Your task to perform on an android device: Show the shopping cart on amazon.com. Add bose quietcomfort 35 to the cart on amazon.com Image 0: 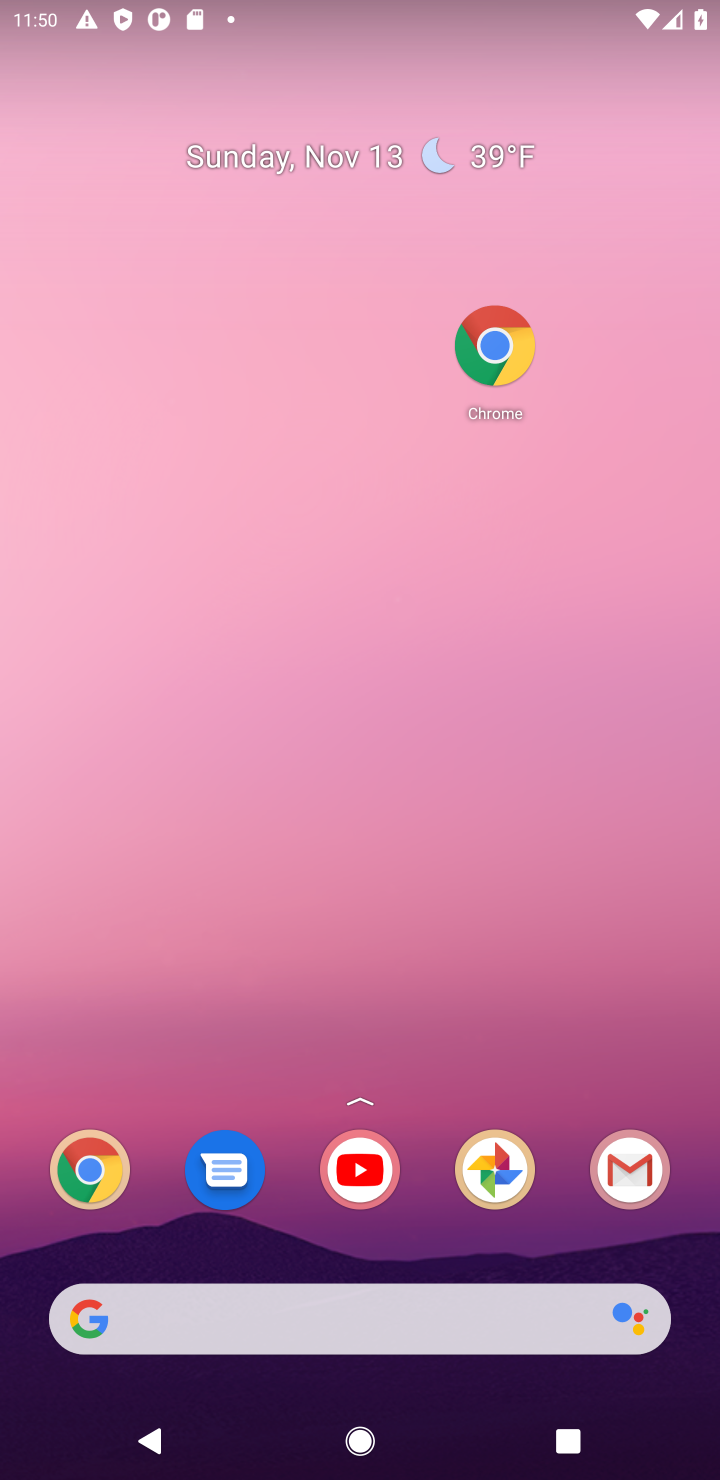
Step 0: drag from (330, 1055) to (381, 0)
Your task to perform on an android device: Show the shopping cart on amazon.com. Add bose quietcomfort 35 to the cart on amazon.com Image 1: 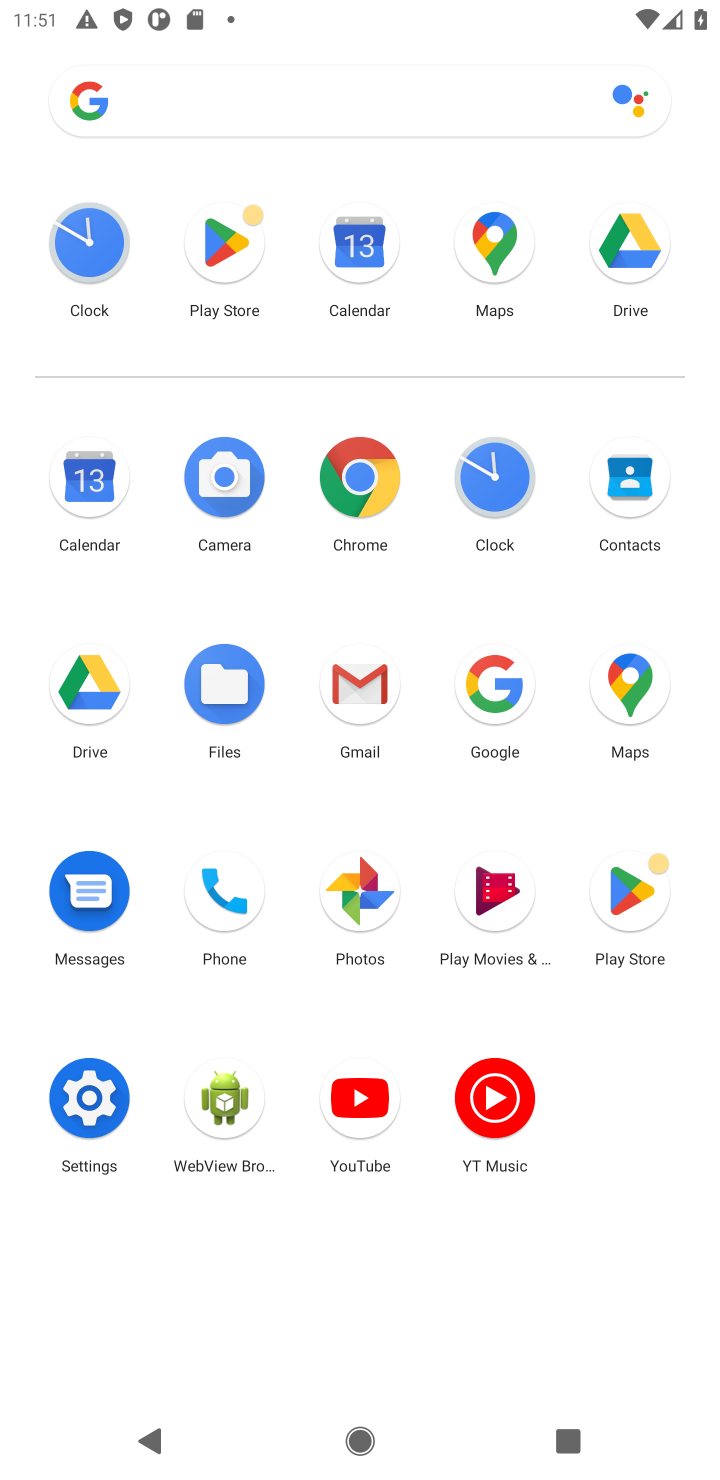
Step 1: click (354, 479)
Your task to perform on an android device: Show the shopping cart on amazon.com. Add bose quietcomfort 35 to the cart on amazon.com Image 2: 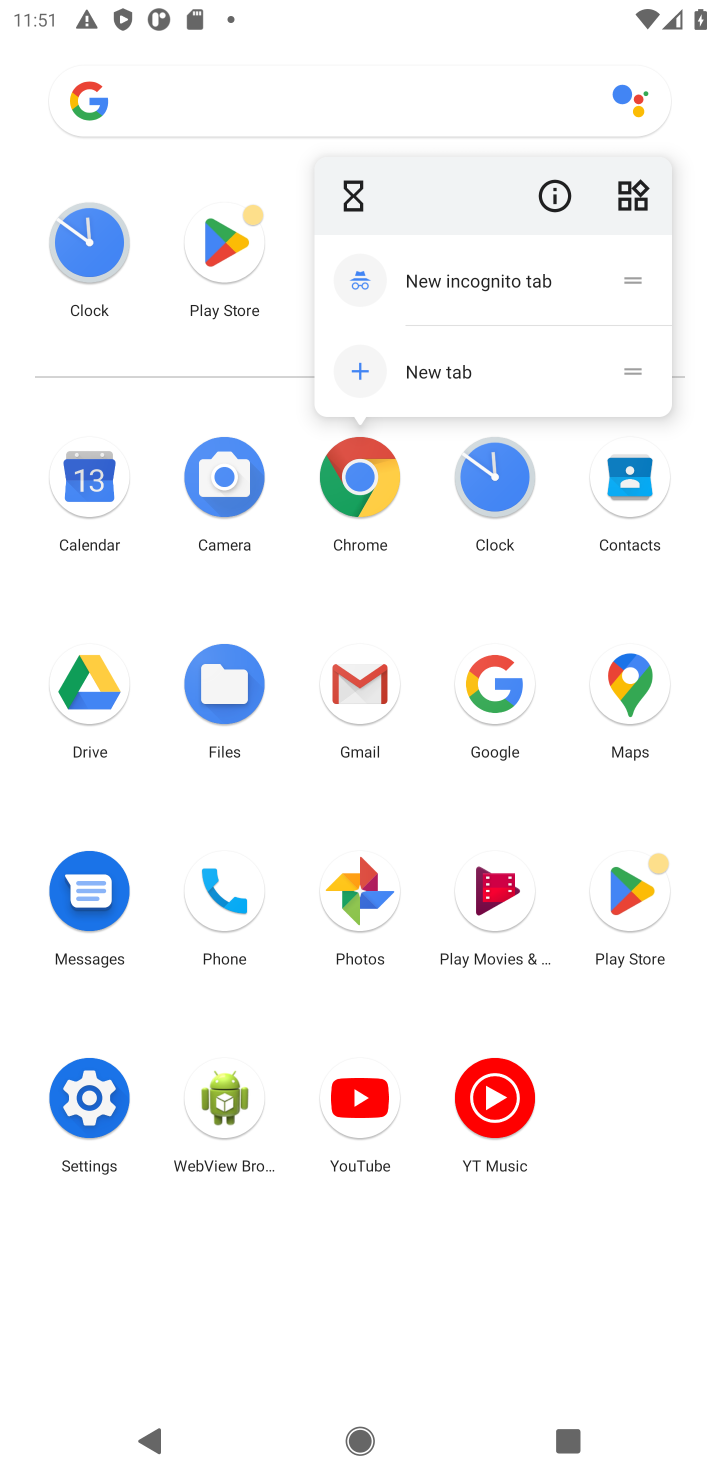
Step 2: click (365, 459)
Your task to perform on an android device: Show the shopping cart on amazon.com. Add bose quietcomfort 35 to the cart on amazon.com Image 3: 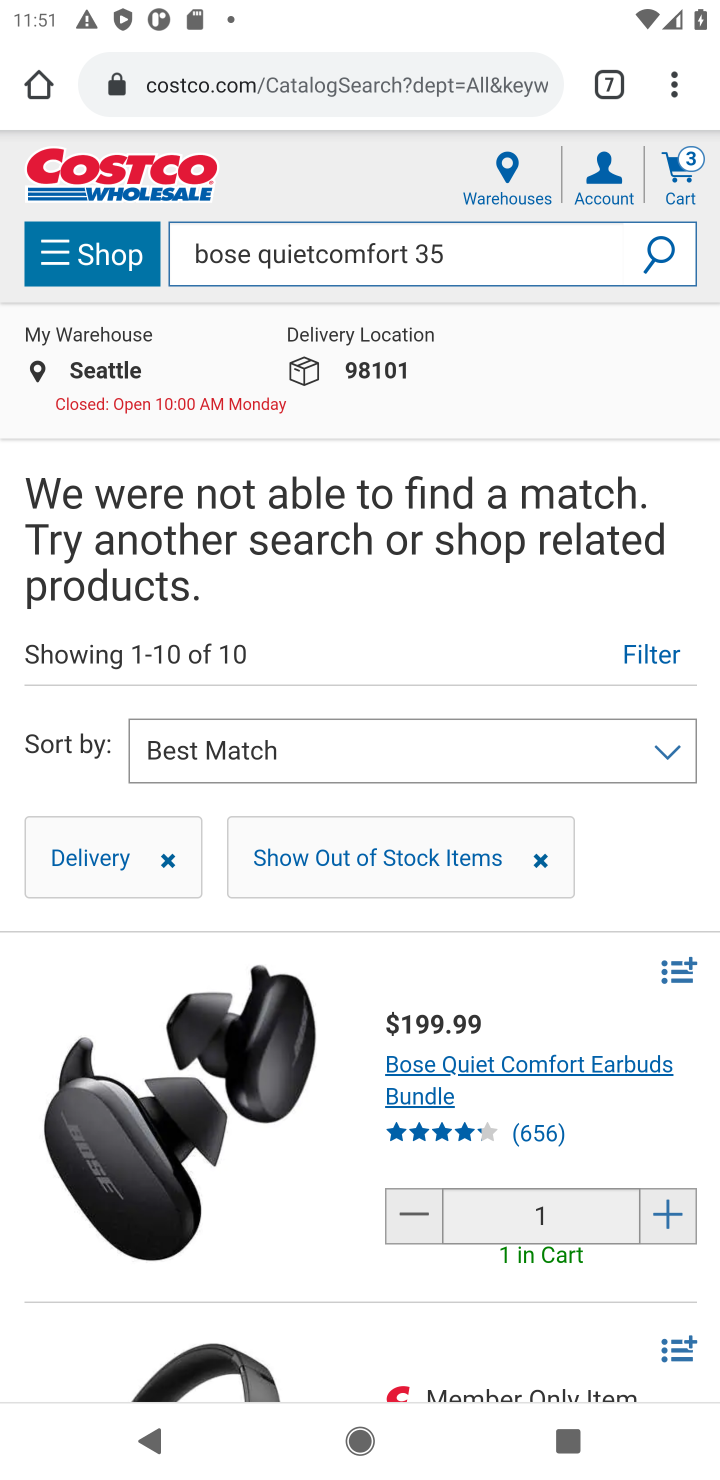
Step 3: click (399, 78)
Your task to perform on an android device: Show the shopping cart on amazon.com. Add bose quietcomfort 35 to the cart on amazon.com Image 4: 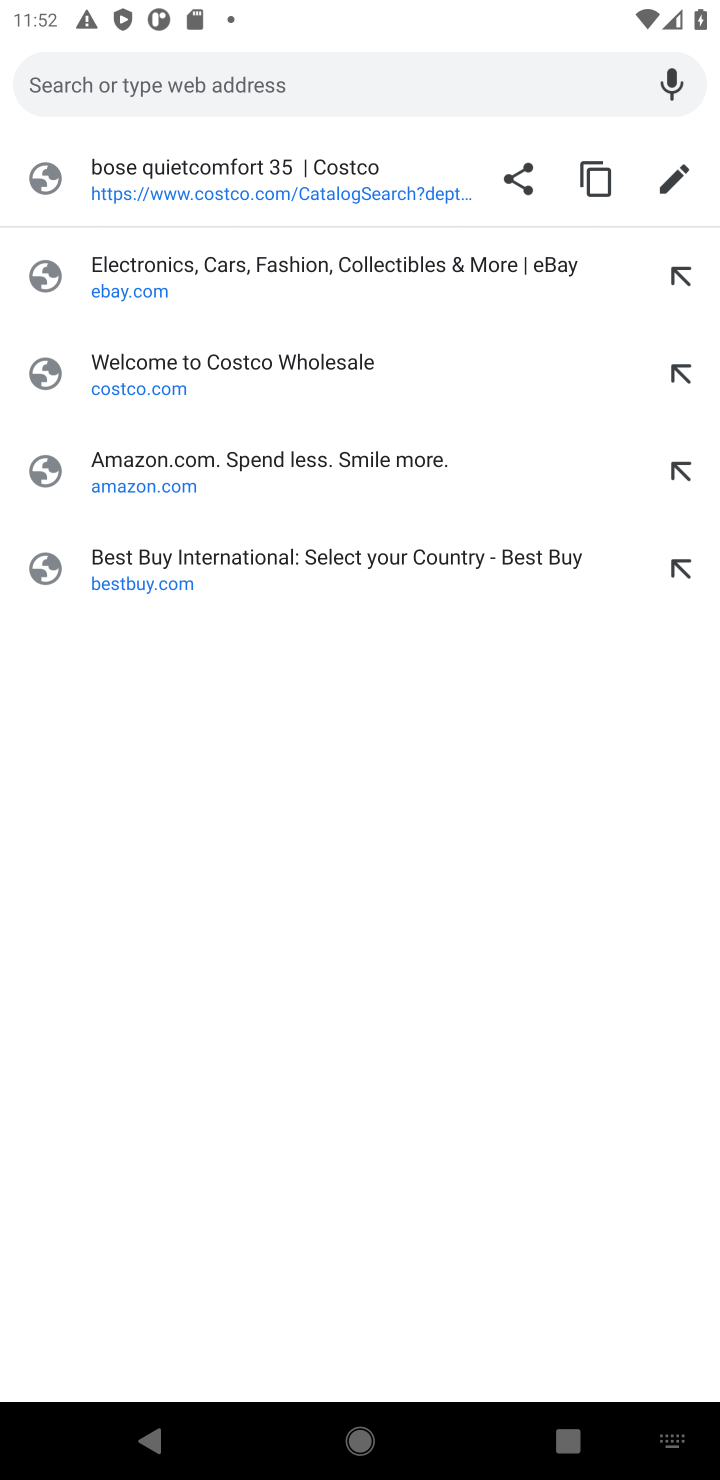
Step 4: press enter
Your task to perform on an android device: Show the shopping cart on amazon.com. Add bose quietcomfort 35 to the cart on amazon.com Image 5: 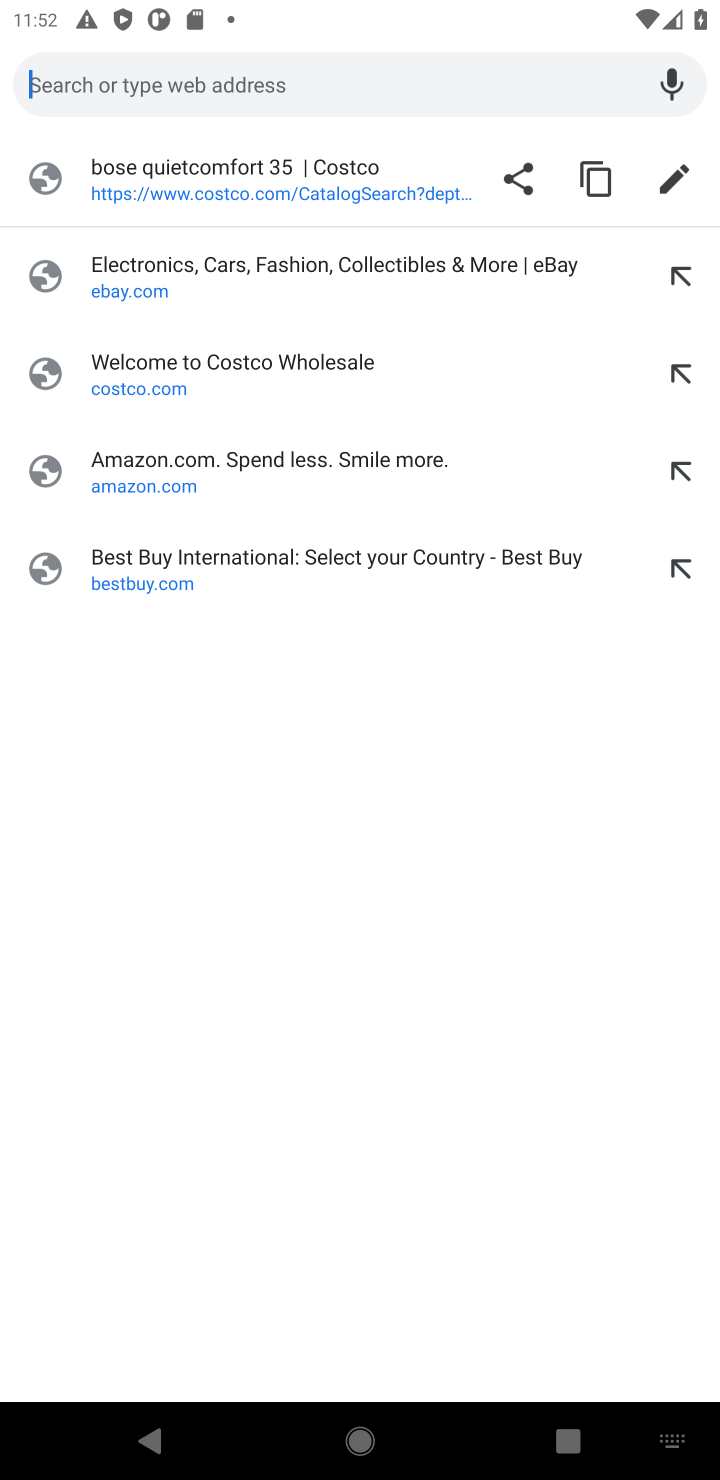
Step 5: type "amazon.com"
Your task to perform on an android device: Show the shopping cart on amazon.com. Add bose quietcomfort 35 to the cart on amazon.com Image 6: 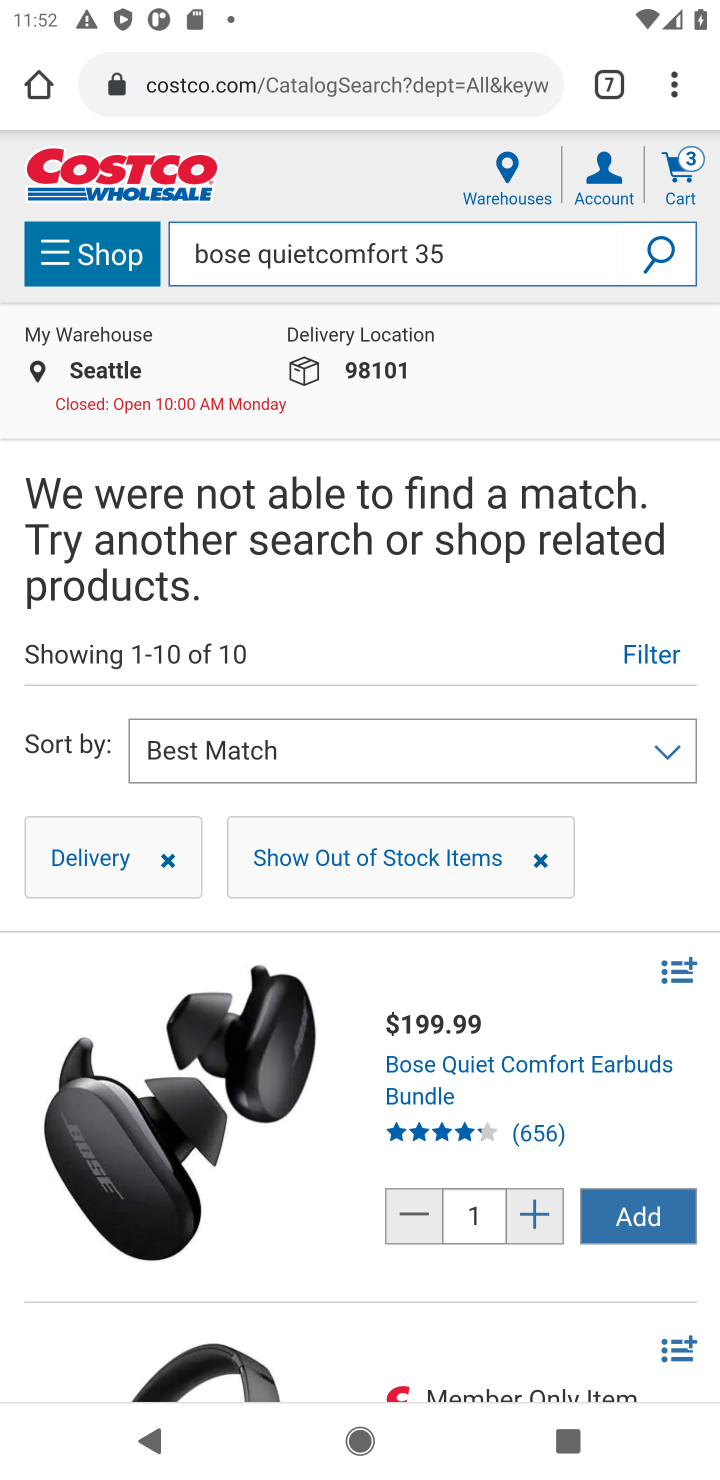
Step 6: click (390, 82)
Your task to perform on an android device: Show the shopping cart on amazon.com. Add bose quietcomfort 35 to the cart on amazon.com Image 7: 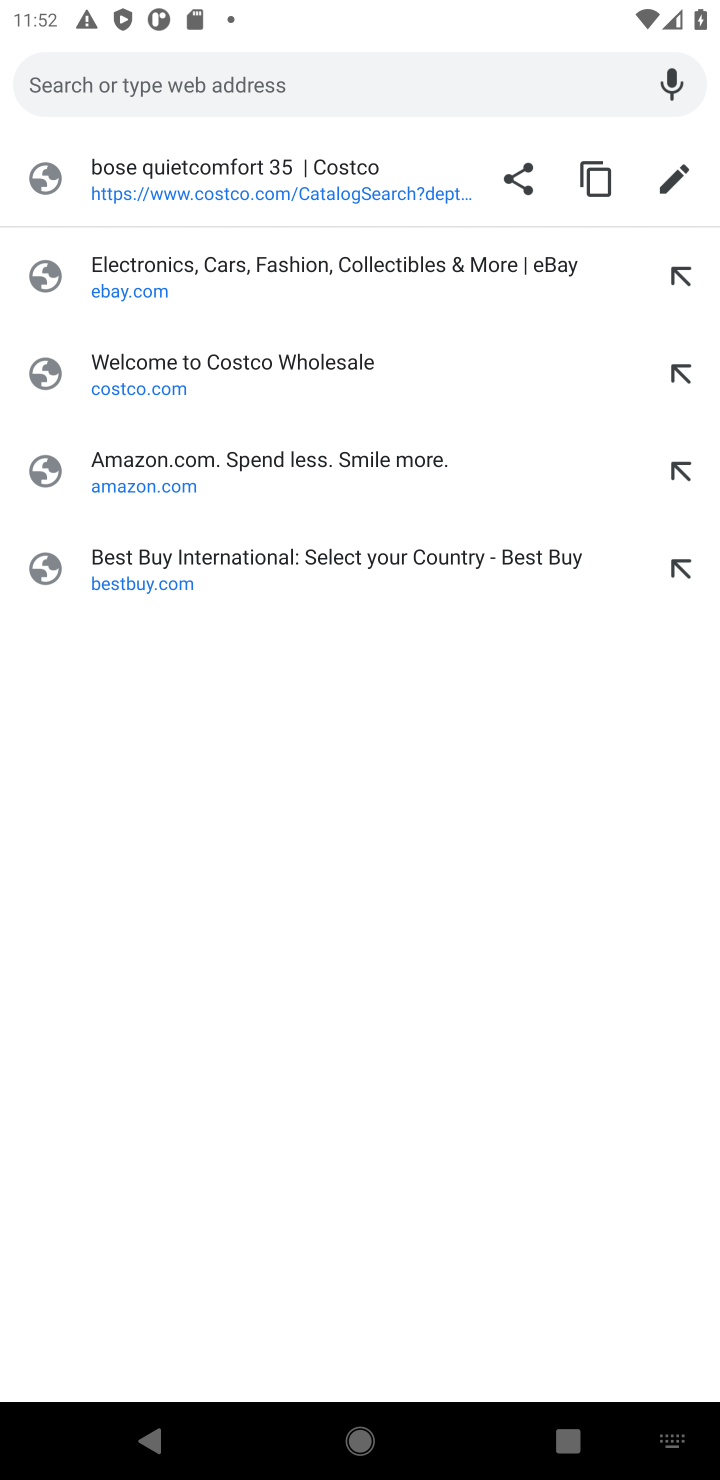
Step 7: type "amazon.com"
Your task to perform on an android device: Show the shopping cart on amazon.com. Add bose quietcomfort 35 to the cart on amazon.com Image 8: 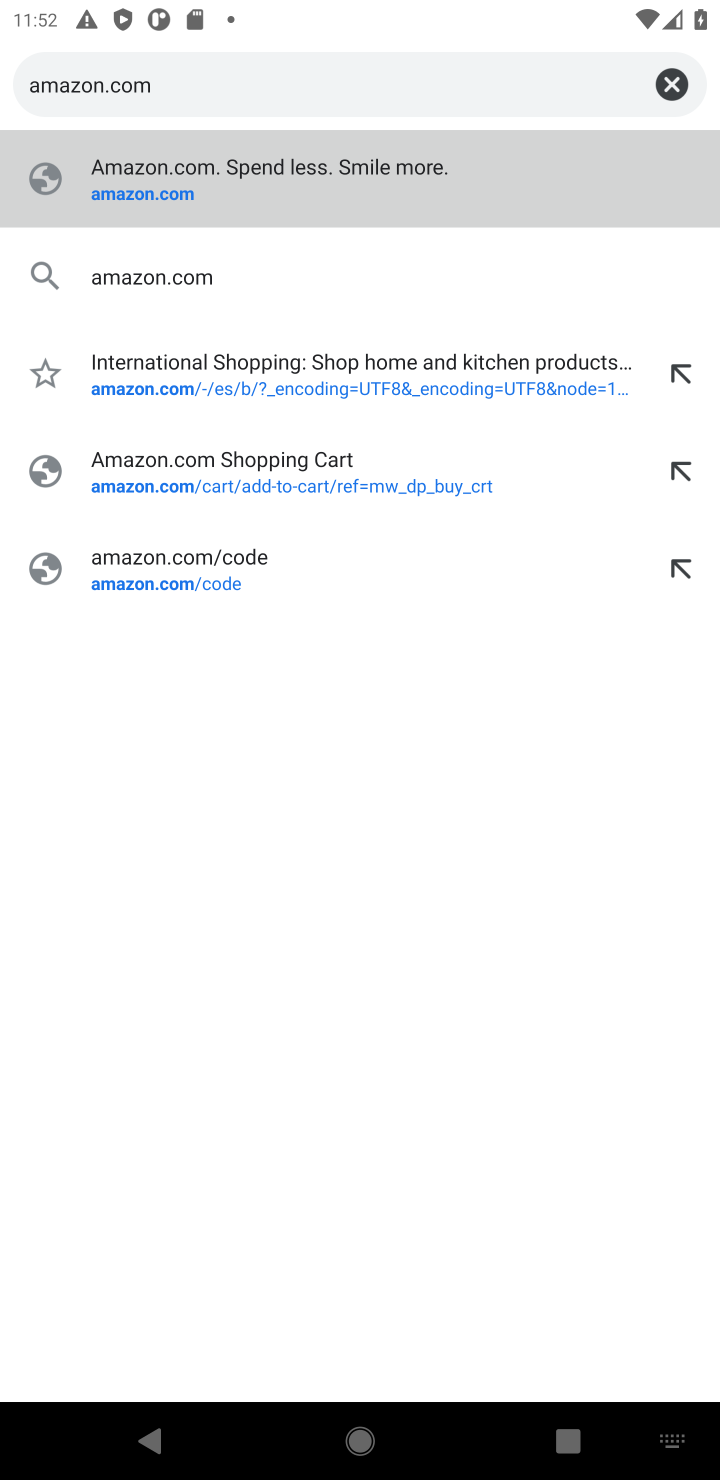
Step 8: press enter
Your task to perform on an android device: Show the shopping cart on amazon.com. Add bose quietcomfort 35 to the cart on amazon.com Image 9: 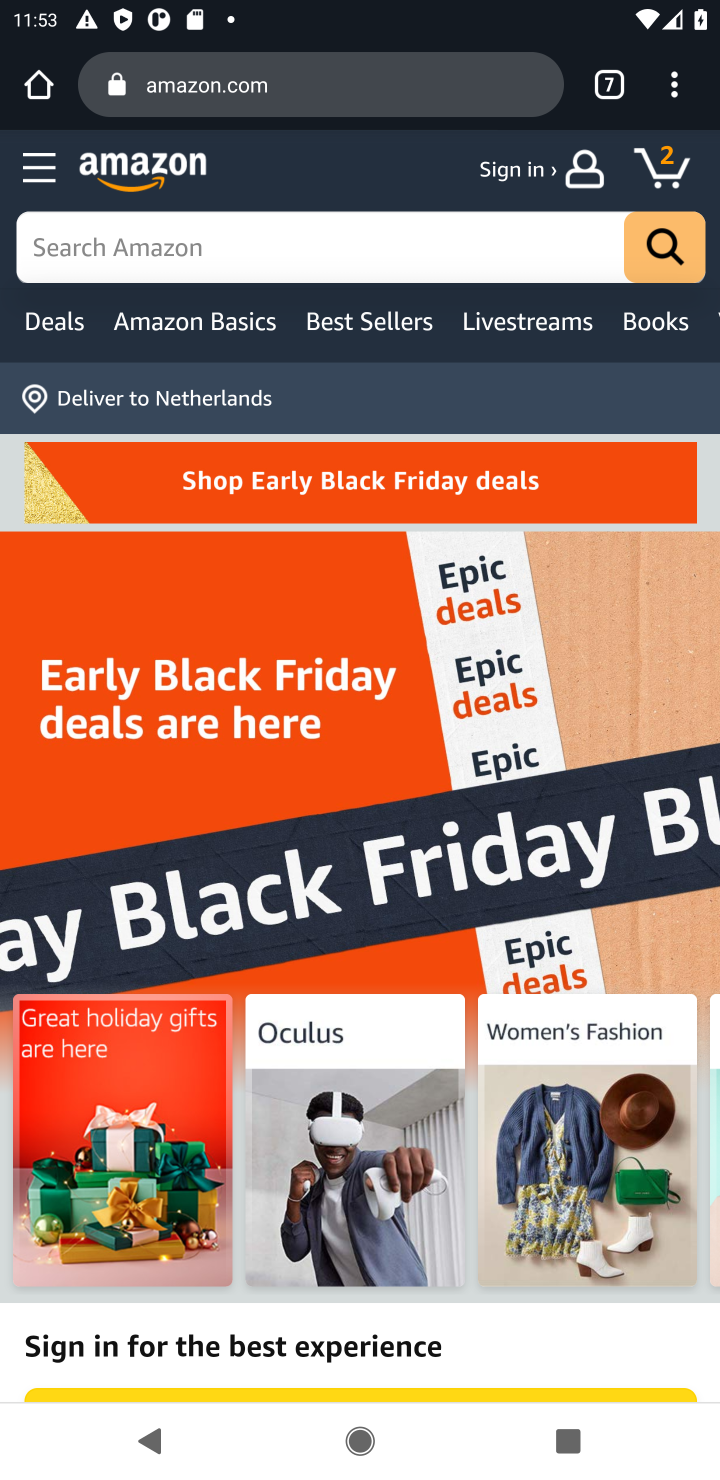
Step 9: click (235, 243)
Your task to perform on an android device: Show the shopping cart on amazon.com. Add bose quietcomfort 35 to the cart on amazon.com Image 10: 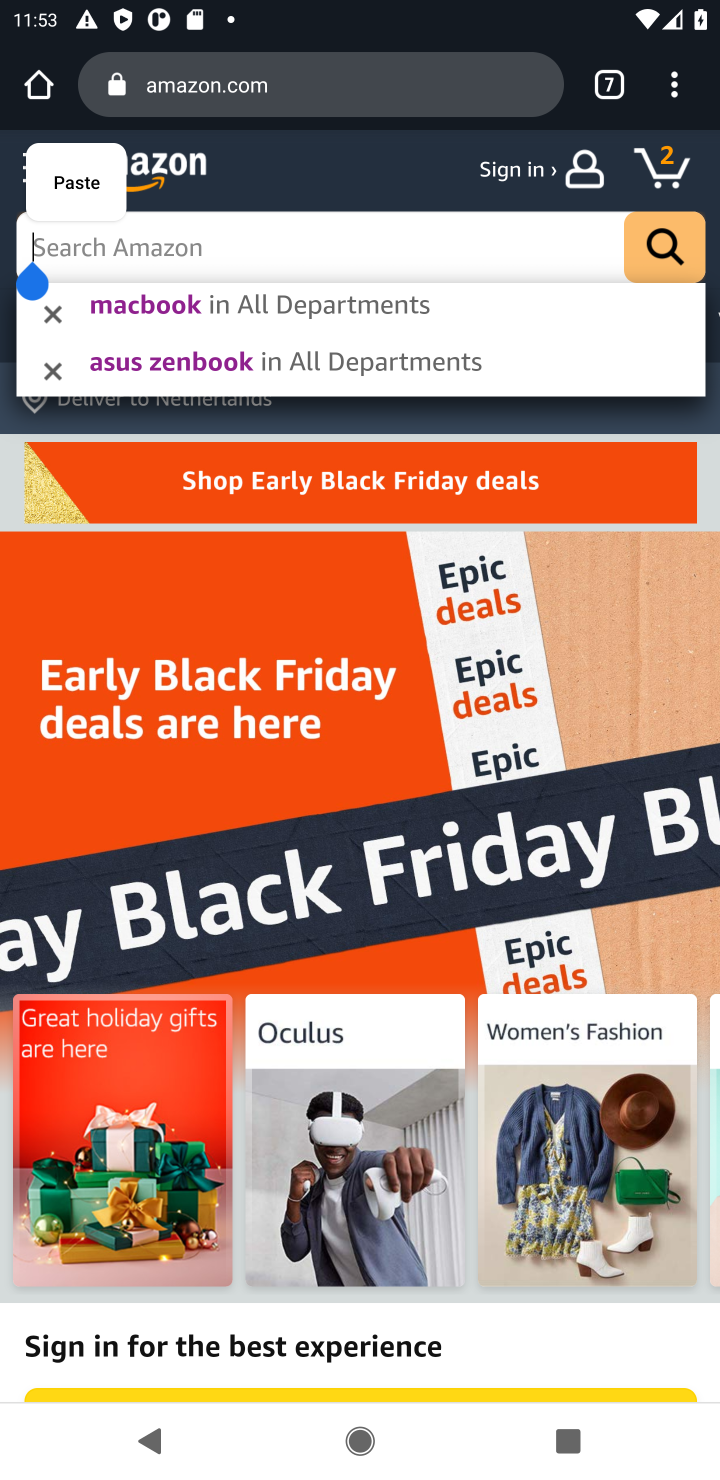
Step 10: click (78, 195)
Your task to perform on an android device: Show the shopping cart on amazon.com. Add bose quietcomfort 35 to the cart on amazon.com Image 11: 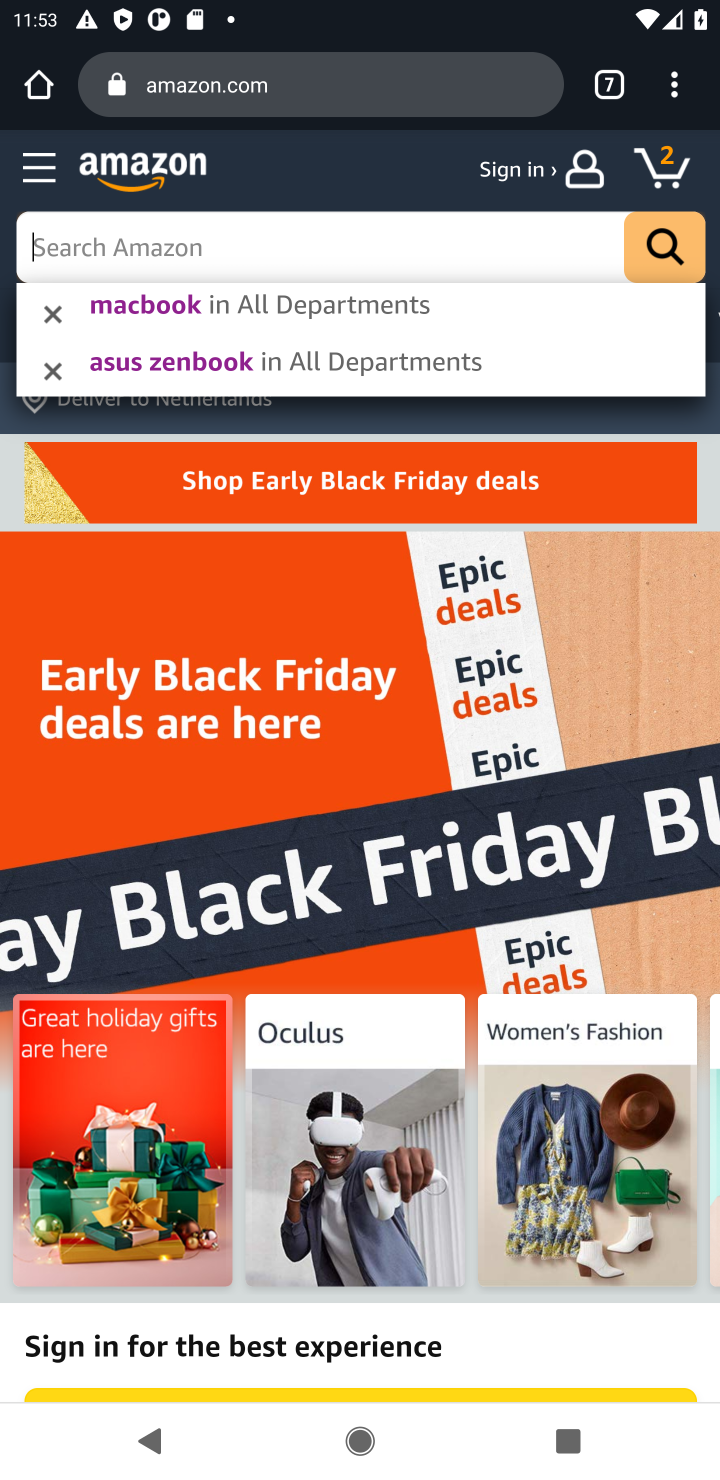
Step 11: type "bose quietcomfort 35"
Your task to perform on an android device: Show the shopping cart on amazon.com. Add bose quietcomfort 35 to the cart on amazon.com Image 12: 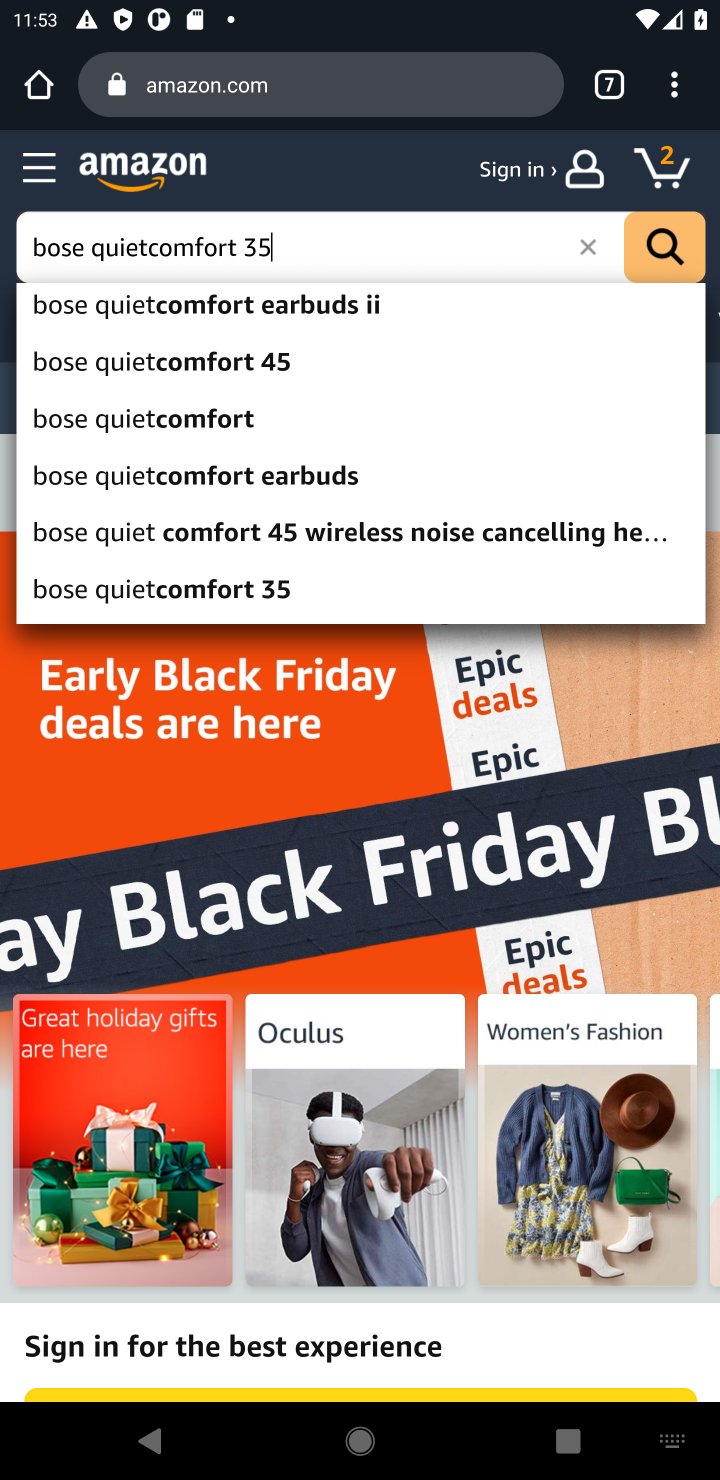
Step 12: press enter
Your task to perform on an android device: Show the shopping cart on amazon.com. Add bose quietcomfort 35 to the cart on amazon.com Image 13: 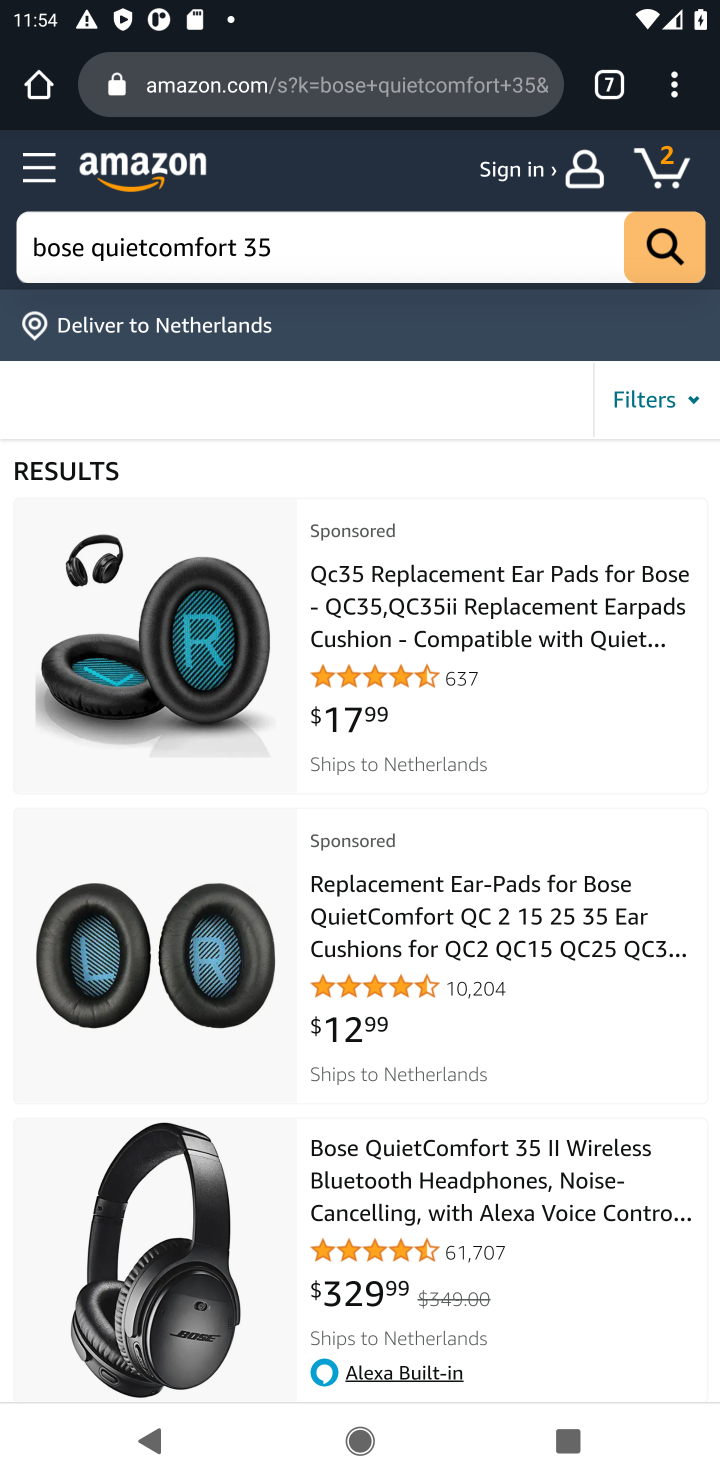
Step 13: click (502, 582)
Your task to perform on an android device: Show the shopping cart on amazon.com. Add bose quietcomfort 35 to the cart on amazon.com Image 14: 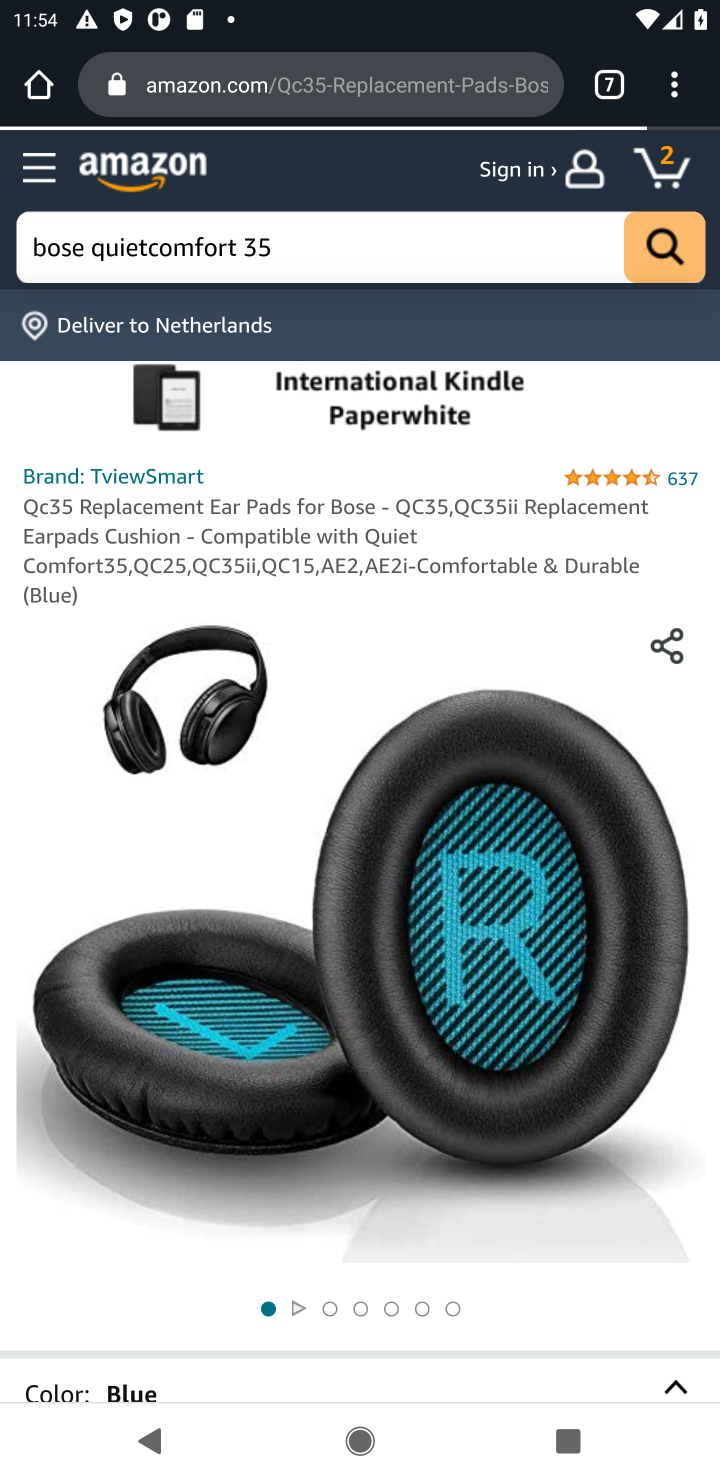
Step 14: drag from (428, 984) to (513, 293)
Your task to perform on an android device: Show the shopping cart on amazon.com. Add bose quietcomfort 35 to the cart on amazon.com Image 15: 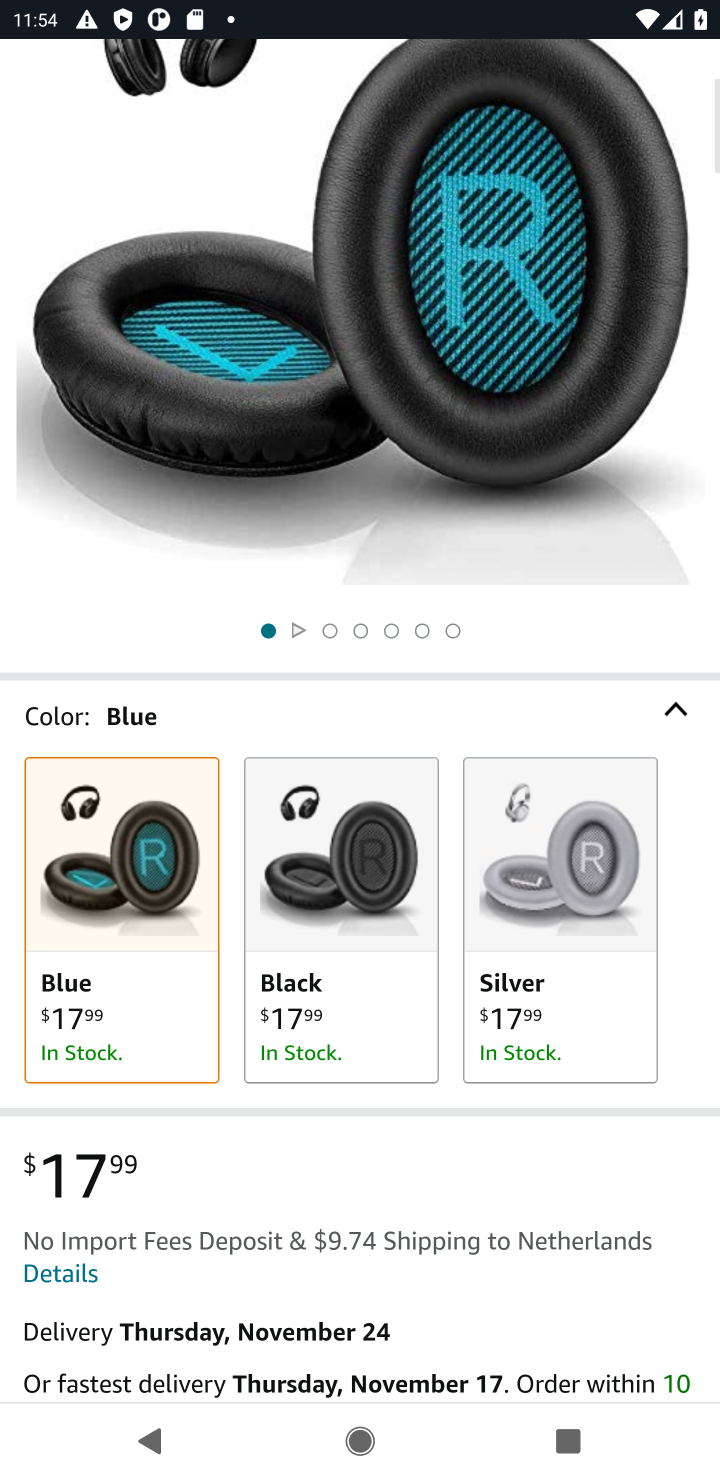
Step 15: drag from (315, 1070) to (370, 393)
Your task to perform on an android device: Show the shopping cart on amazon.com. Add bose quietcomfort 35 to the cart on amazon.com Image 16: 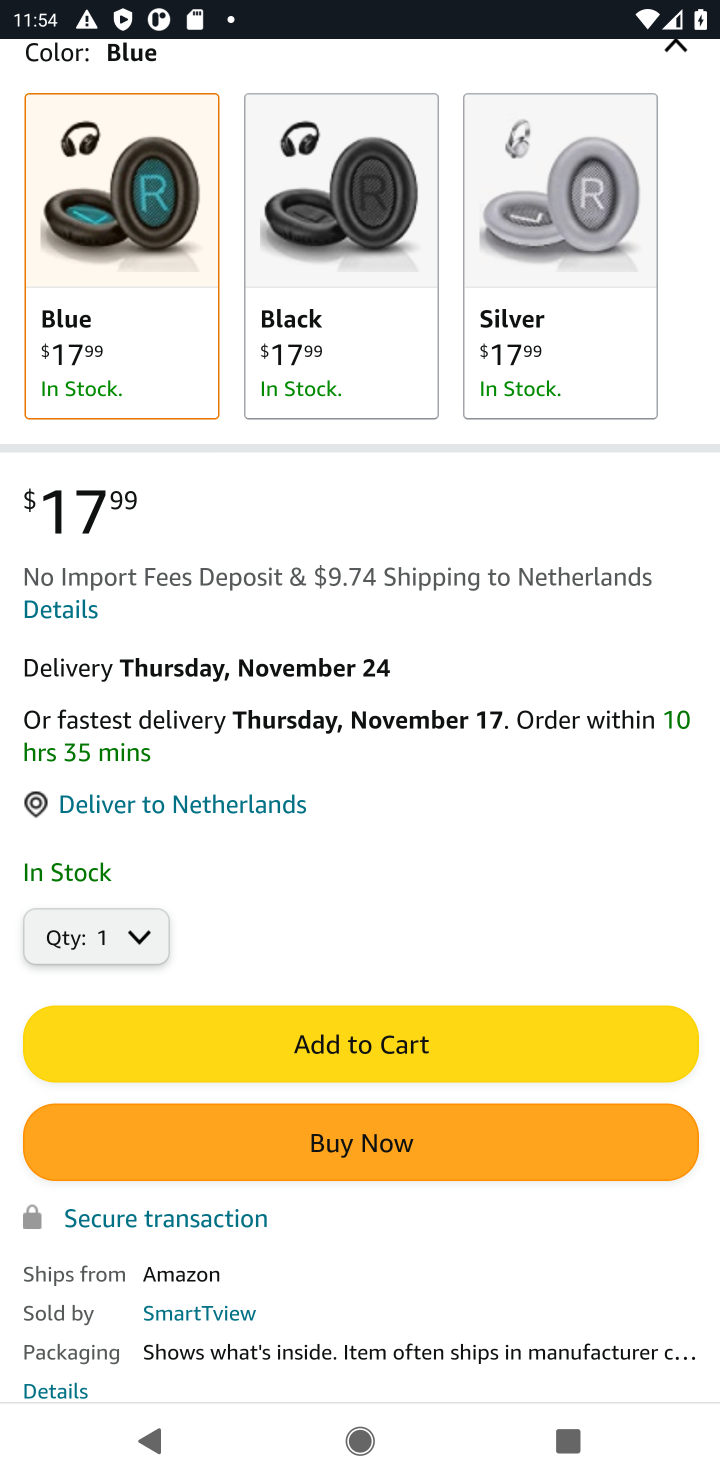
Step 16: drag from (416, 1052) to (523, 465)
Your task to perform on an android device: Show the shopping cart on amazon.com. Add bose quietcomfort 35 to the cart on amazon.com Image 17: 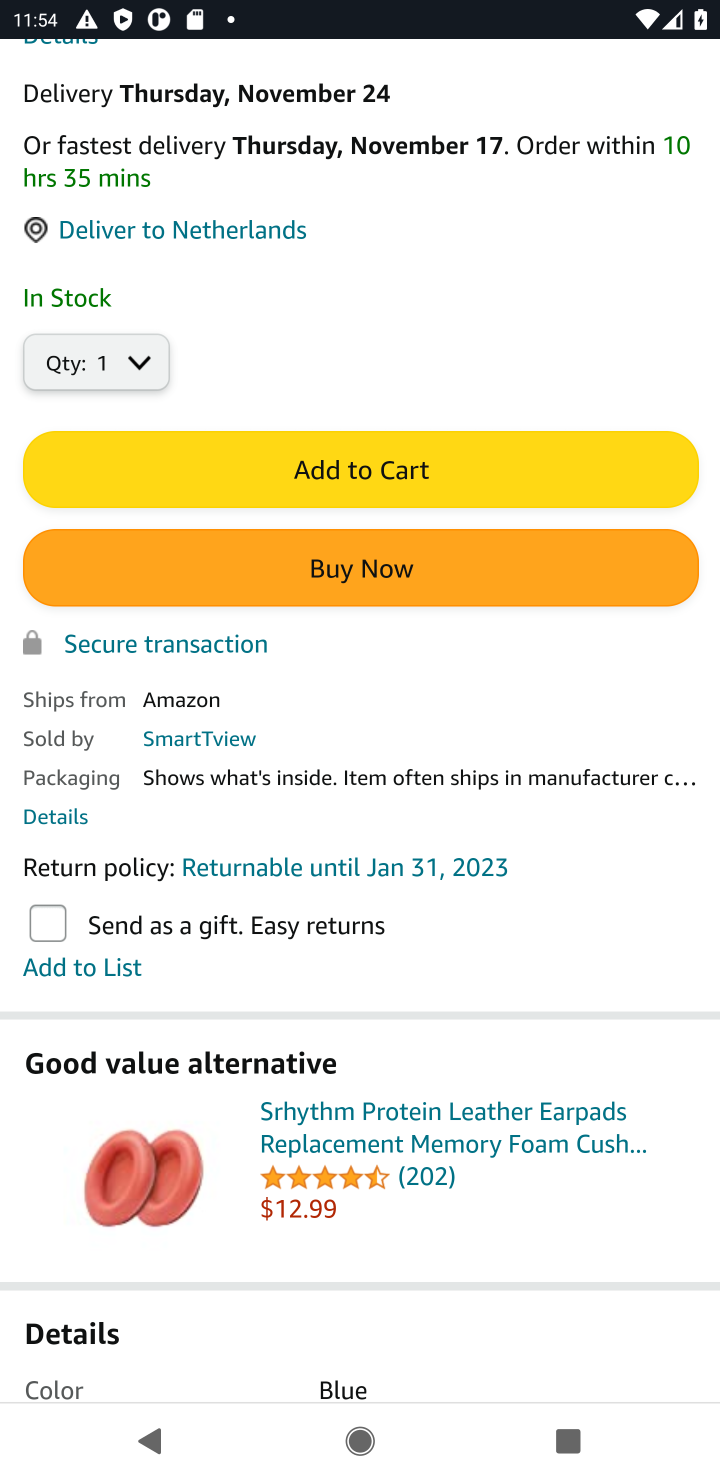
Step 17: click (418, 483)
Your task to perform on an android device: Show the shopping cart on amazon.com. Add bose quietcomfort 35 to the cart on amazon.com Image 18: 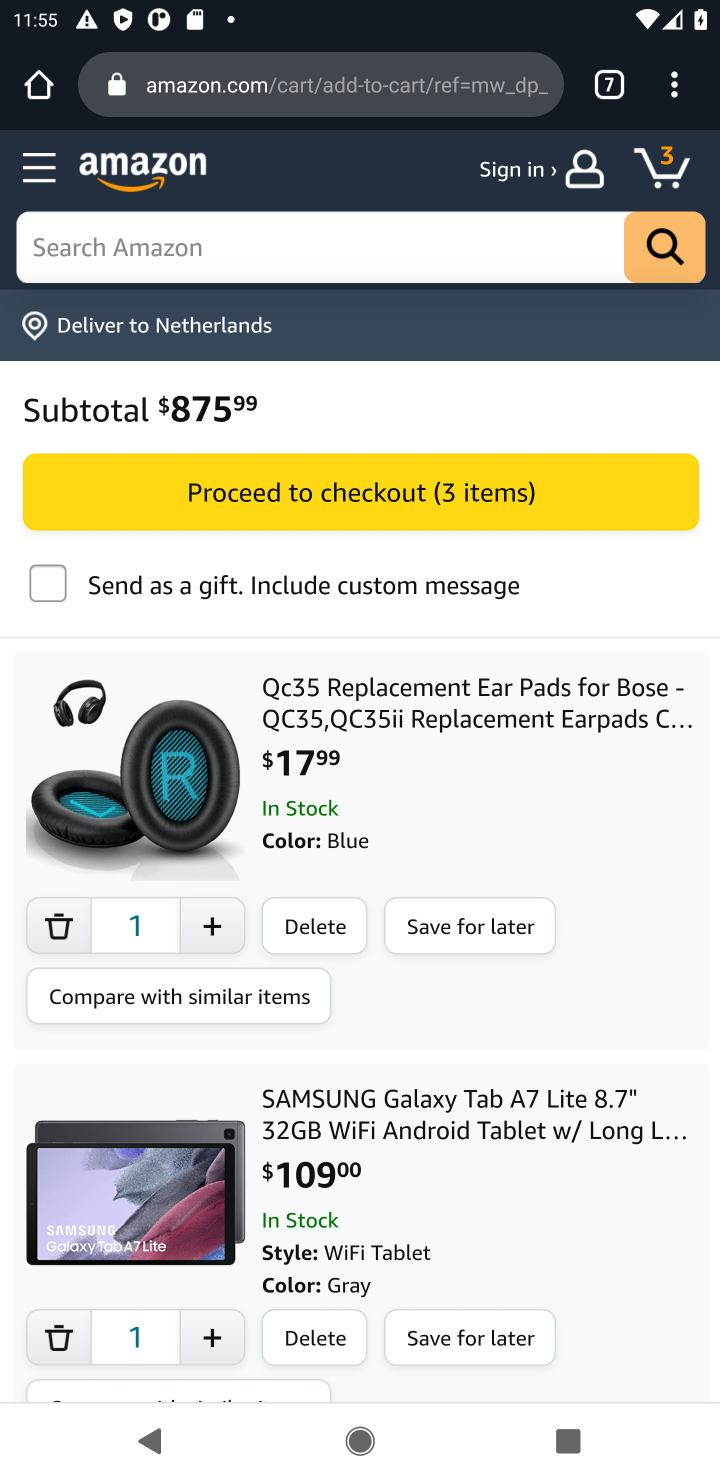
Step 18: task complete